Your task to perform on an android device: Go to Amazon Image 0: 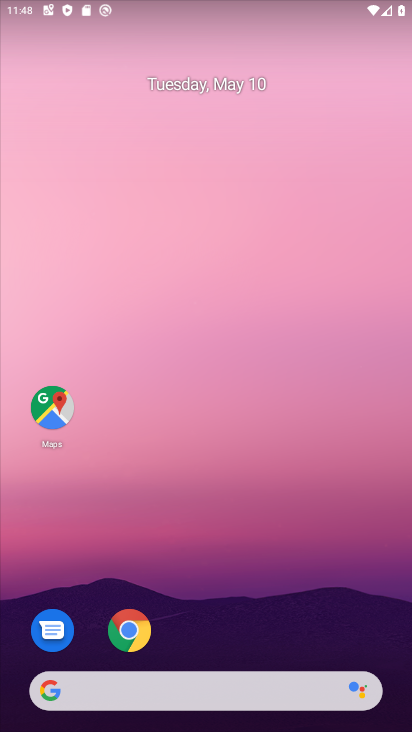
Step 0: click (126, 632)
Your task to perform on an android device: Go to Amazon Image 1: 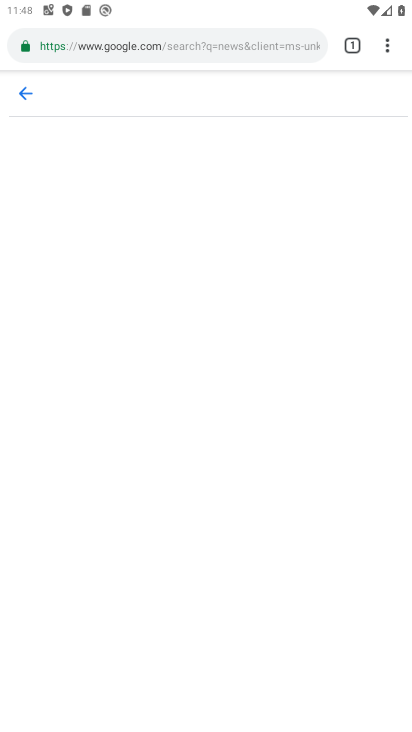
Step 1: click (193, 40)
Your task to perform on an android device: Go to Amazon Image 2: 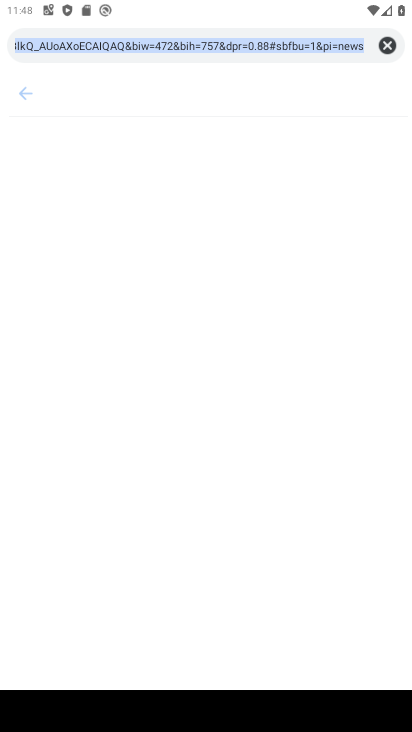
Step 2: type "amazon"
Your task to perform on an android device: Go to Amazon Image 3: 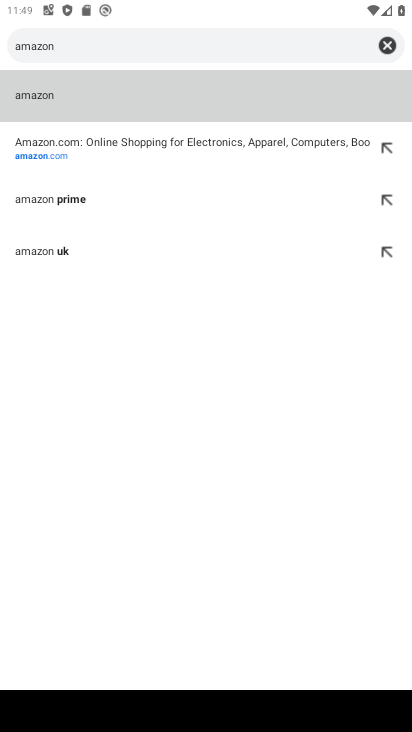
Step 3: click (50, 147)
Your task to perform on an android device: Go to Amazon Image 4: 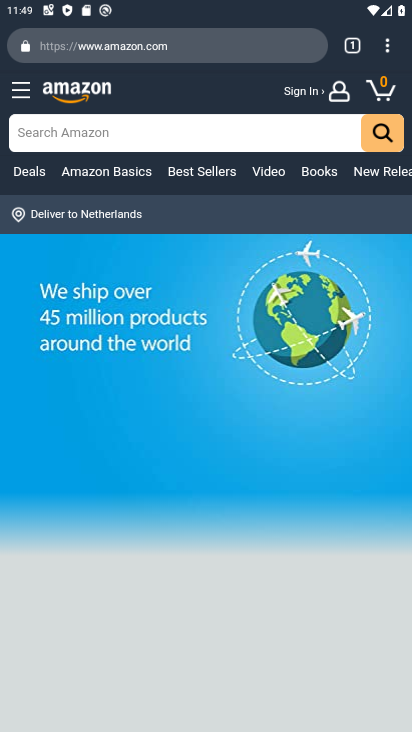
Step 4: task complete